Your task to perform on an android device: toggle notifications settings in the gmail app Image 0: 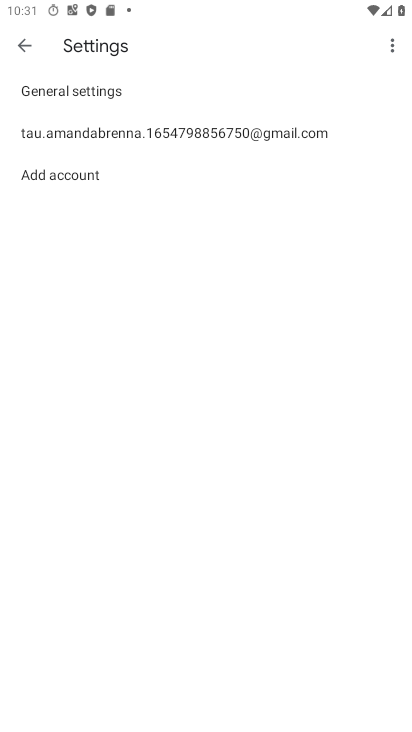
Step 0: press home button
Your task to perform on an android device: toggle notifications settings in the gmail app Image 1: 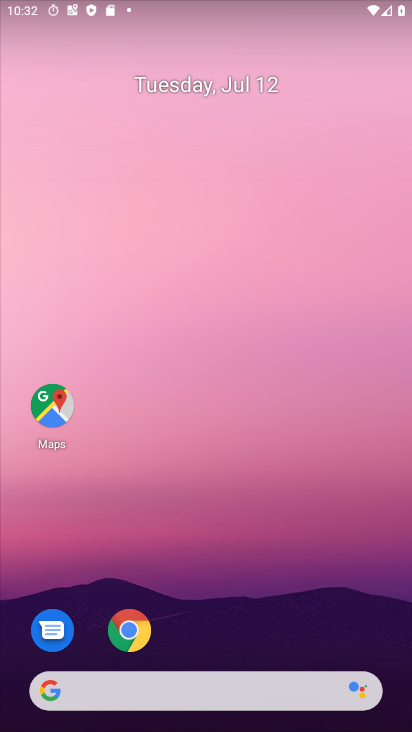
Step 1: drag from (222, 640) to (232, 158)
Your task to perform on an android device: toggle notifications settings in the gmail app Image 2: 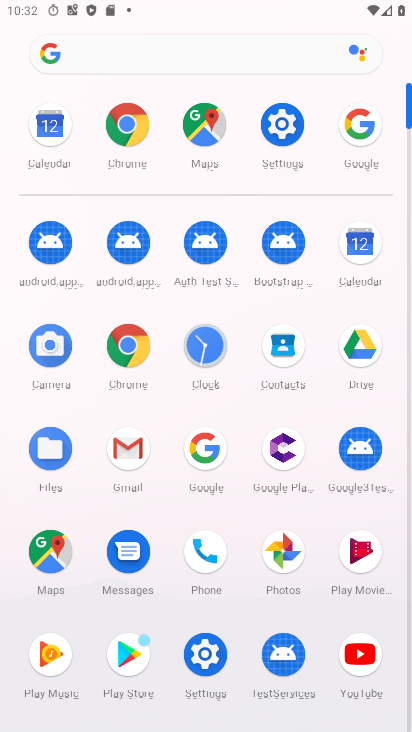
Step 2: click (128, 449)
Your task to perform on an android device: toggle notifications settings in the gmail app Image 3: 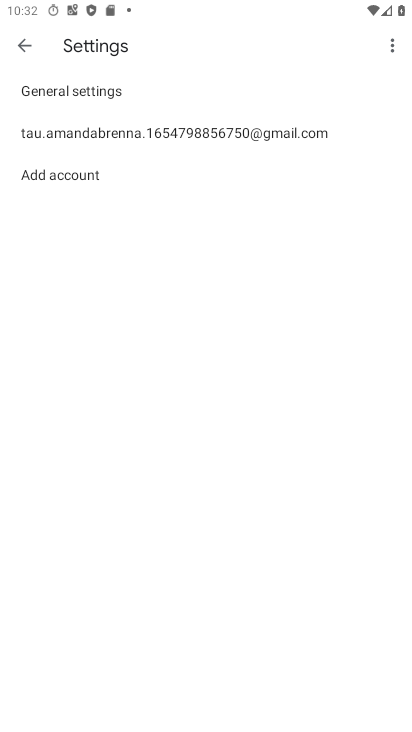
Step 3: click (103, 129)
Your task to perform on an android device: toggle notifications settings in the gmail app Image 4: 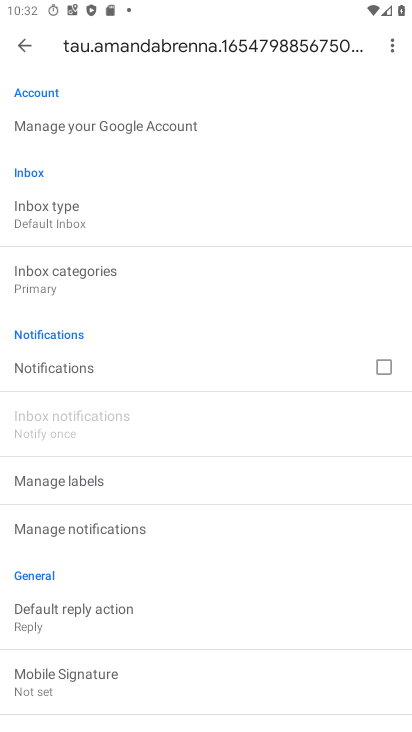
Step 4: click (385, 365)
Your task to perform on an android device: toggle notifications settings in the gmail app Image 5: 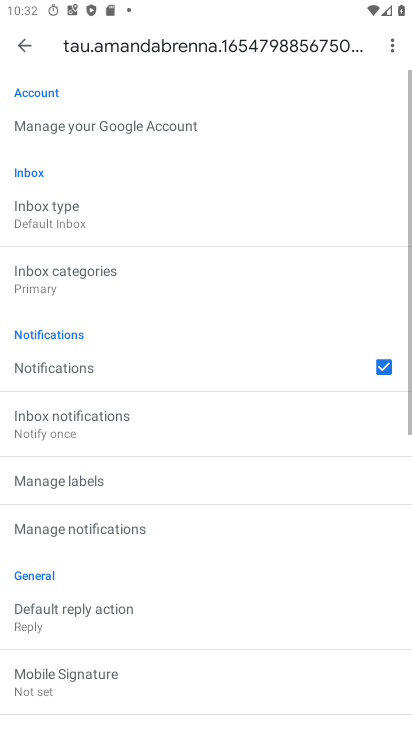
Step 5: task complete